Your task to perform on an android device: set an alarm Image 0: 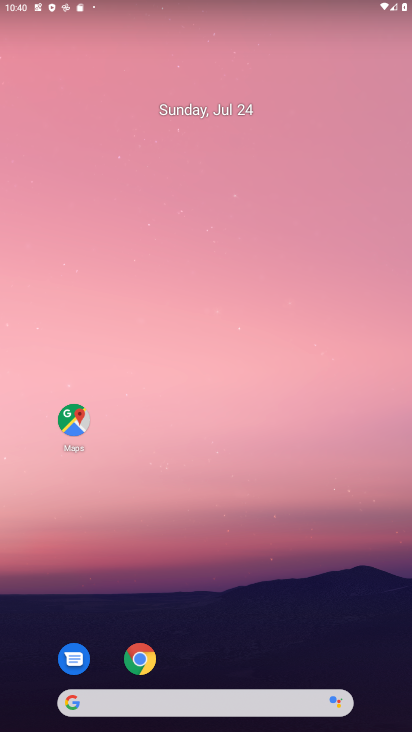
Step 0: drag from (378, 705) to (408, 103)
Your task to perform on an android device: set an alarm Image 1: 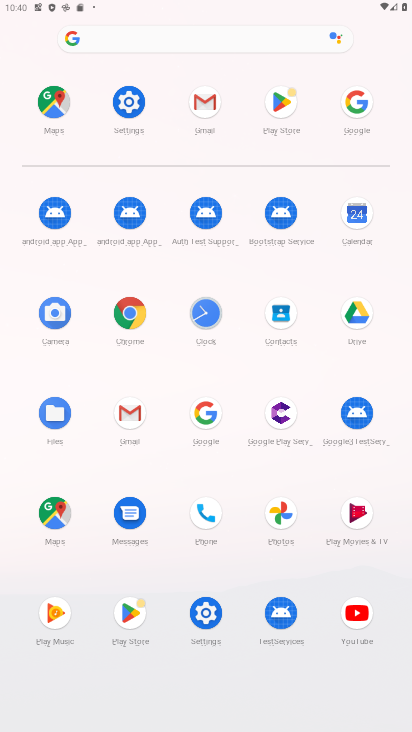
Step 1: click (205, 315)
Your task to perform on an android device: set an alarm Image 2: 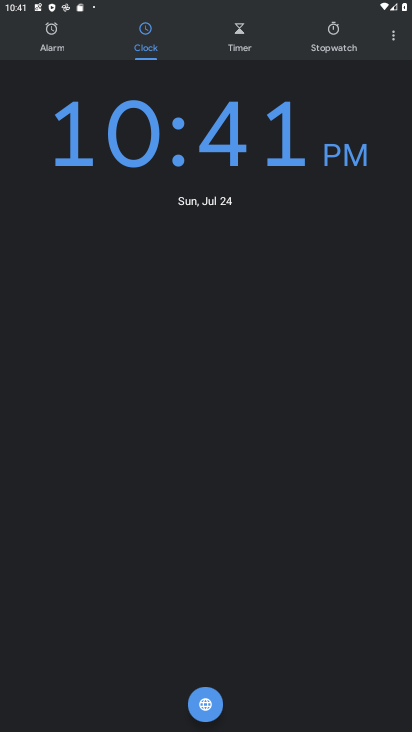
Step 2: click (46, 46)
Your task to perform on an android device: set an alarm Image 3: 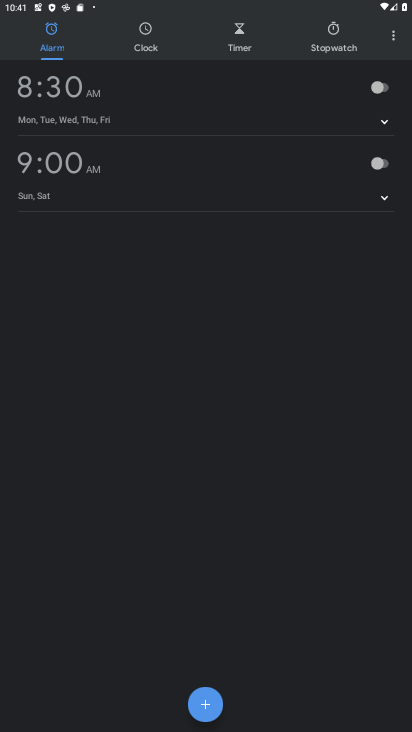
Step 3: click (384, 83)
Your task to perform on an android device: set an alarm Image 4: 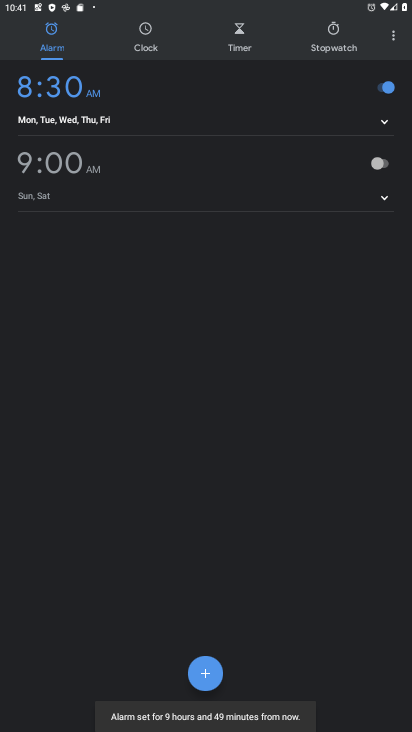
Step 4: task complete